Your task to perform on an android device: allow notifications from all sites in the chrome app Image 0: 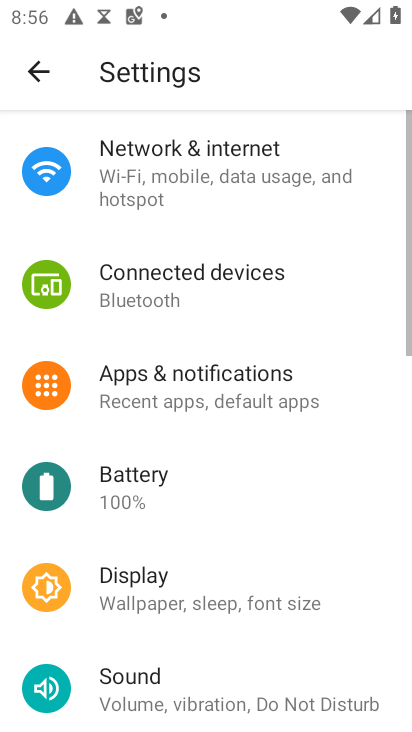
Step 0: press home button
Your task to perform on an android device: allow notifications from all sites in the chrome app Image 1: 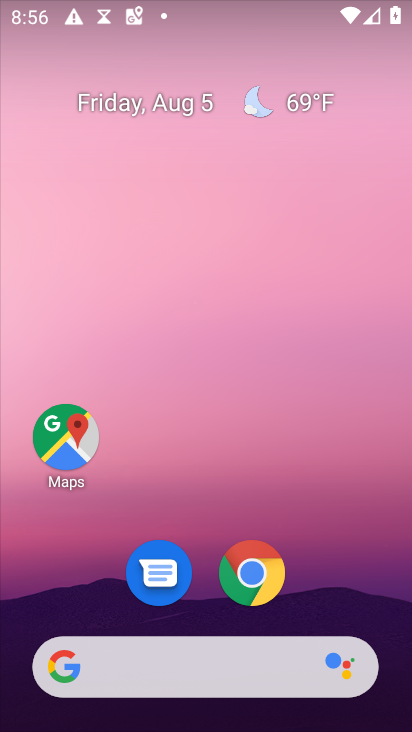
Step 1: click (255, 572)
Your task to perform on an android device: allow notifications from all sites in the chrome app Image 2: 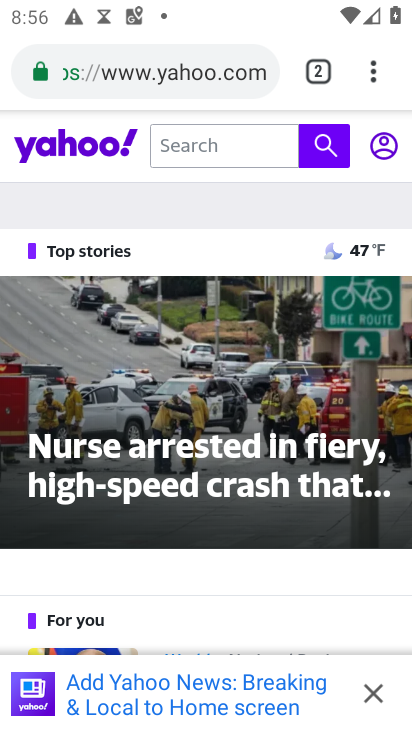
Step 2: click (374, 74)
Your task to perform on an android device: allow notifications from all sites in the chrome app Image 3: 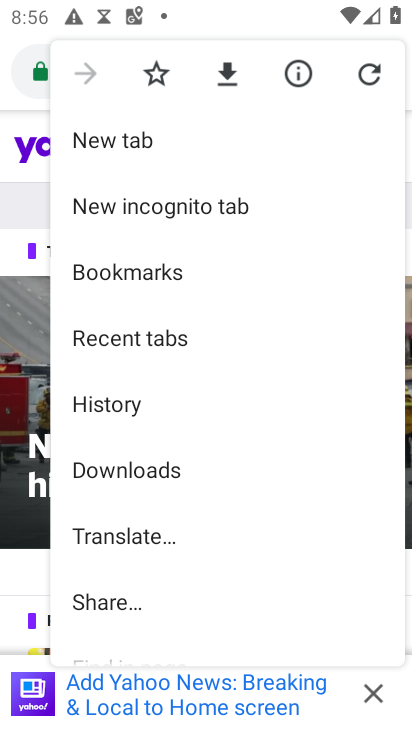
Step 3: drag from (155, 432) to (192, 287)
Your task to perform on an android device: allow notifications from all sites in the chrome app Image 4: 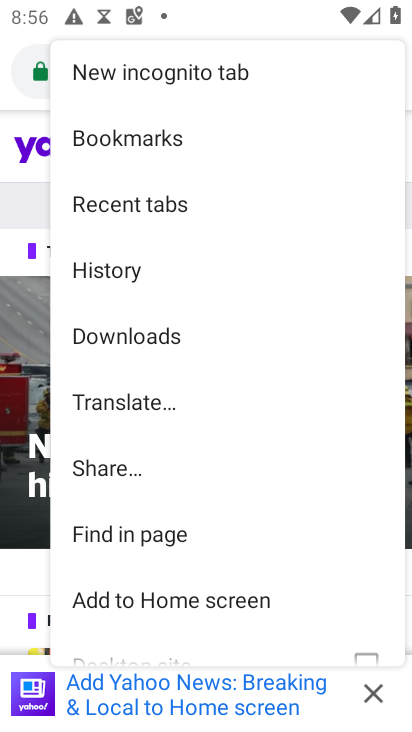
Step 4: drag from (144, 562) to (166, 401)
Your task to perform on an android device: allow notifications from all sites in the chrome app Image 5: 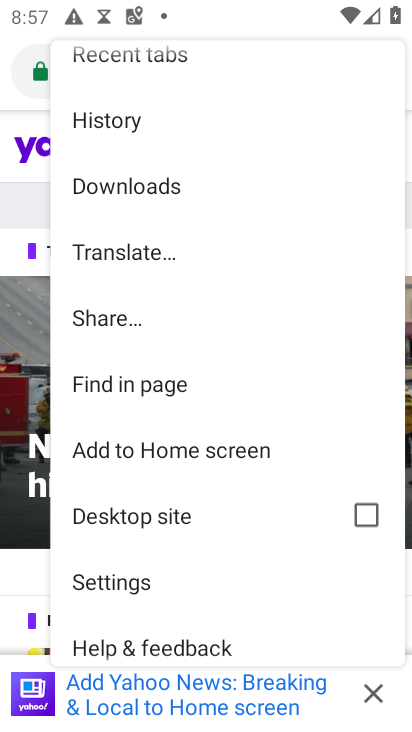
Step 5: click (131, 589)
Your task to perform on an android device: allow notifications from all sites in the chrome app Image 6: 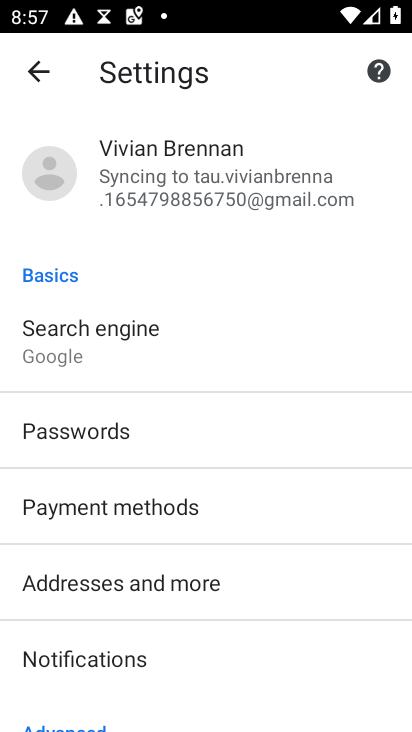
Step 6: click (138, 661)
Your task to perform on an android device: allow notifications from all sites in the chrome app Image 7: 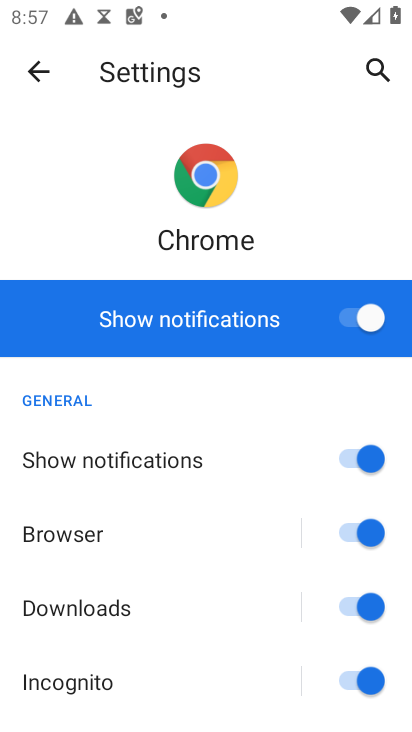
Step 7: task complete